Your task to perform on an android device: toggle notifications settings in the gmail app Image 0: 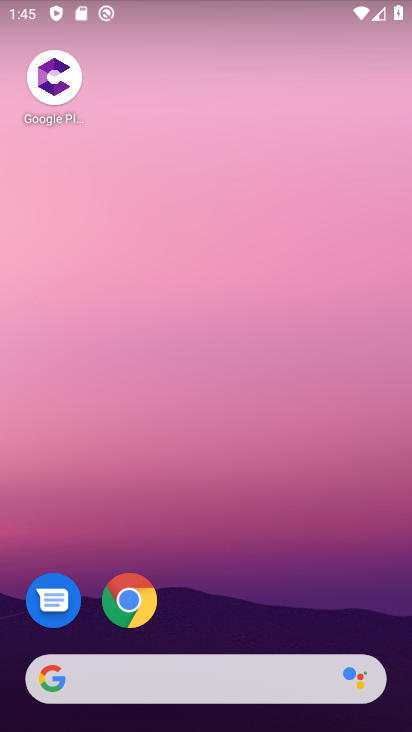
Step 0: drag from (286, 612) to (254, 255)
Your task to perform on an android device: toggle notifications settings in the gmail app Image 1: 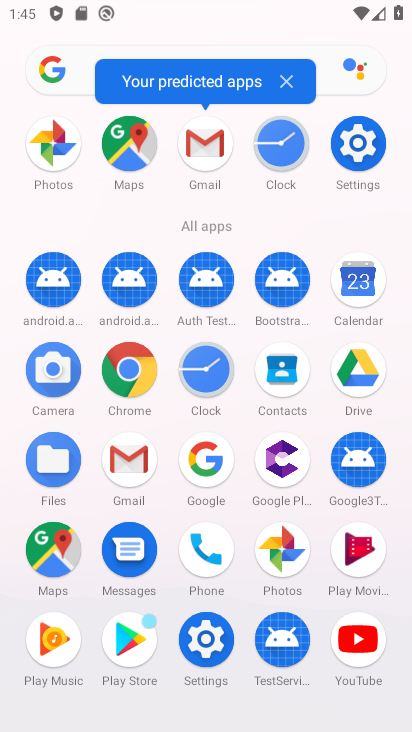
Step 1: click (346, 139)
Your task to perform on an android device: toggle notifications settings in the gmail app Image 2: 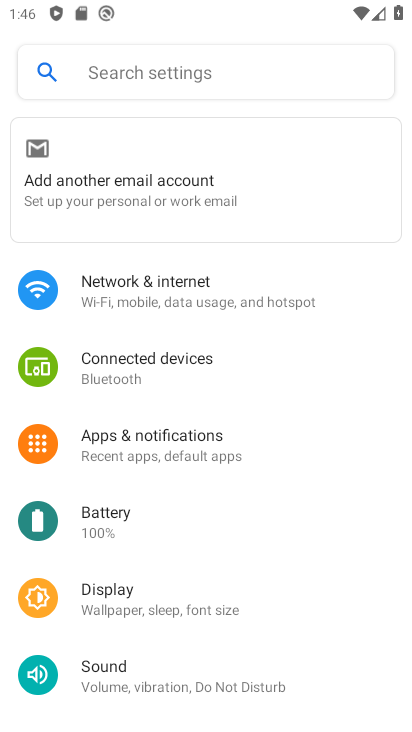
Step 2: press home button
Your task to perform on an android device: toggle notifications settings in the gmail app Image 3: 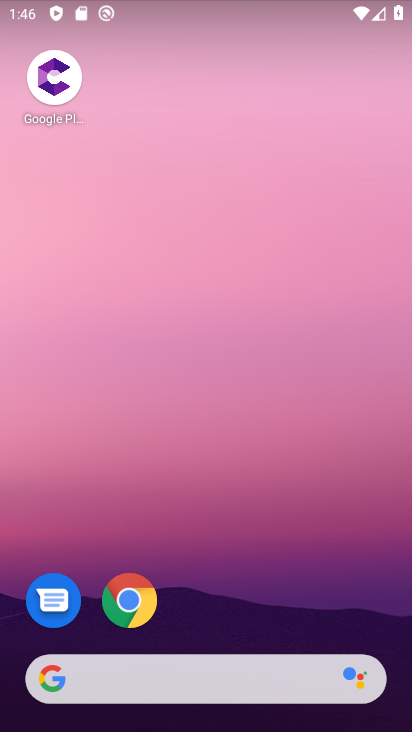
Step 3: drag from (230, 542) to (268, 224)
Your task to perform on an android device: toggle notifications settings in the gmail app Image 4: 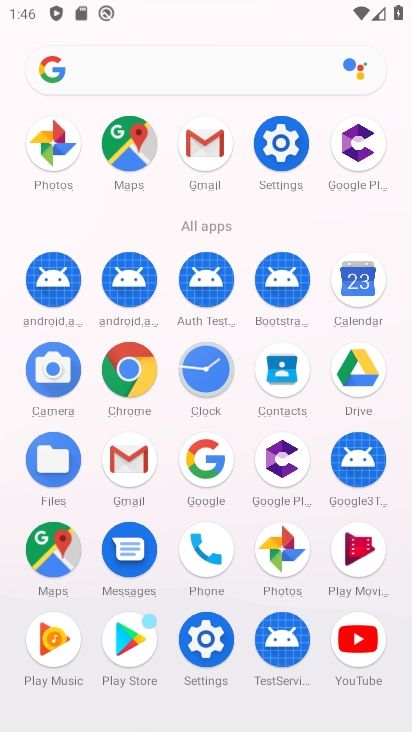
Step 4: click (131, 446)
Your task to perform on an android device: toggle notifications settings in the gmail app Image 5: 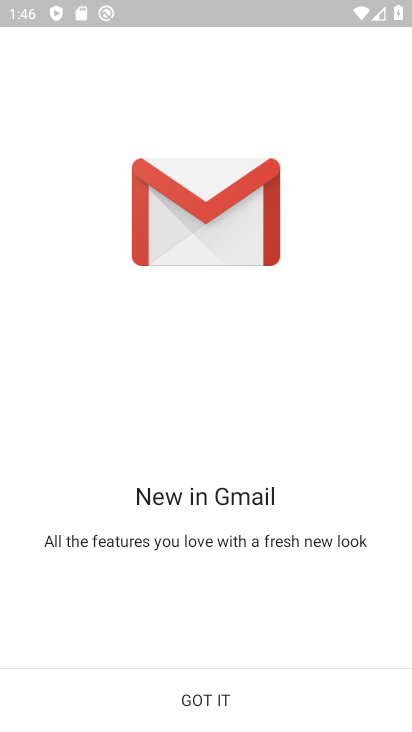
Step 5: click (214, 702)
Your task to perform on an android device: toggle notifications settings in the gmail app Image 6: 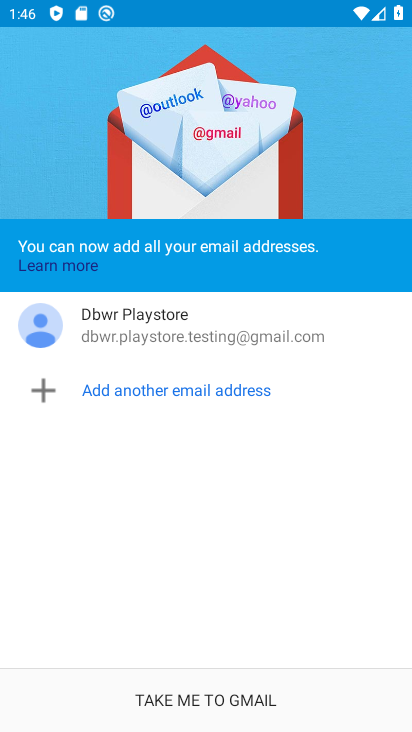
Step 6: click (220, 702)
Your task to perform on an android device: toggle notifications settings in the gmail app Image 7: 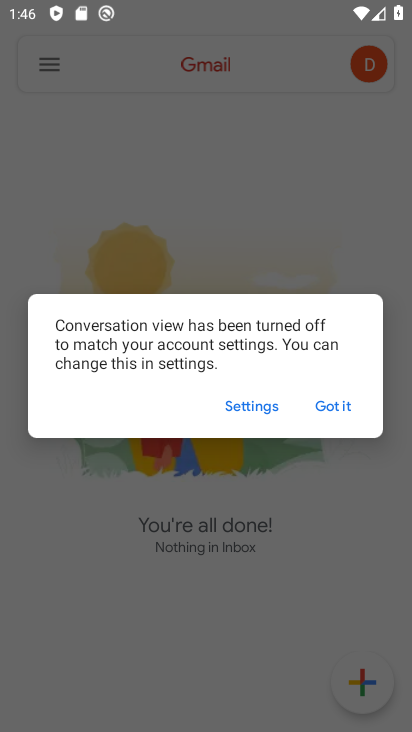
Step 7: click (340, 397)
Your task to perform on an android device: toggle notifications settings in the gmail app Image 8: 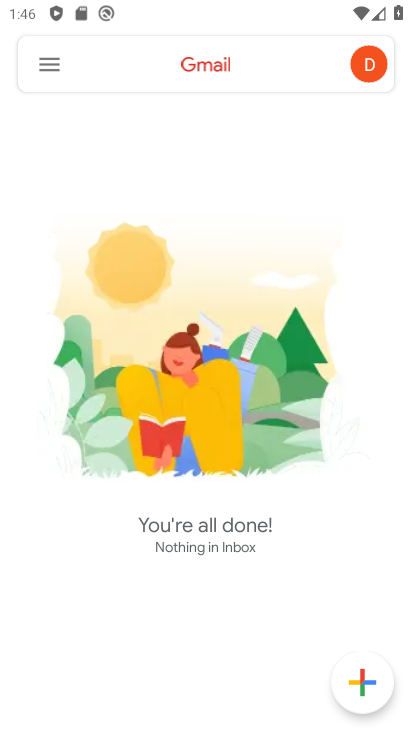
Step 8: click (48, 62)
Your task to perform on an android device: toggle notifications settings in the gmail app Image 9: 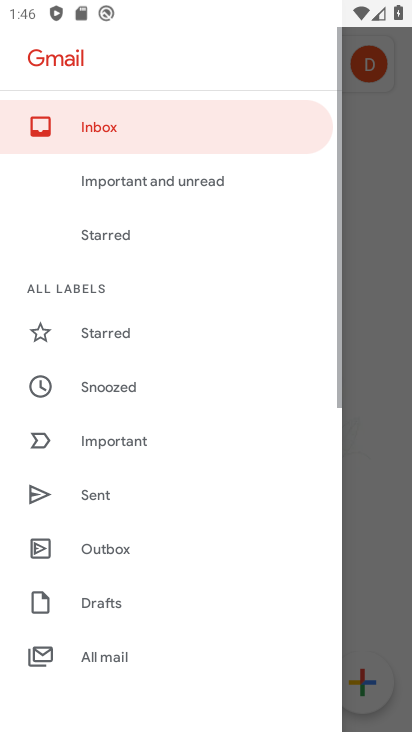
Step 9: drag from (171, 600) to (202, 244)
Your task to perform on an android device: toggle notifications settings in the gmail app Image 10: 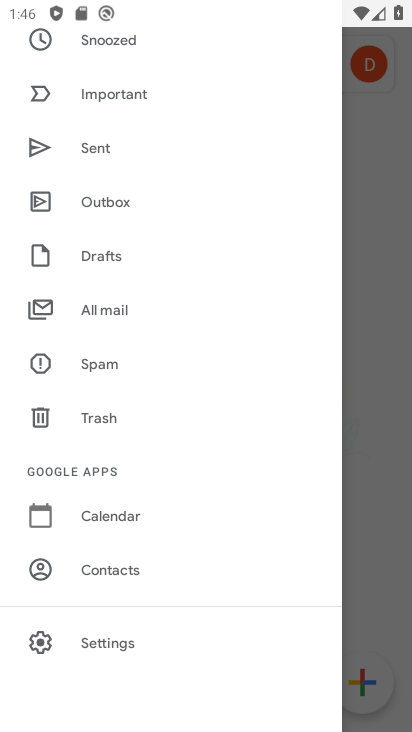
Step 10: click (132, 637)
Your task to perform on an android device: toggle notifications settings in the gmail app Image 11: 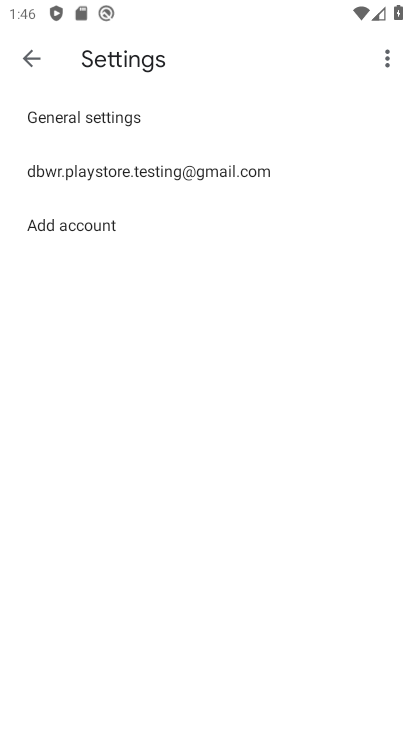
Step 11: click (121, 163)
Your task to perform on an android device: toggle notifications settings in the gmail app Image 12: 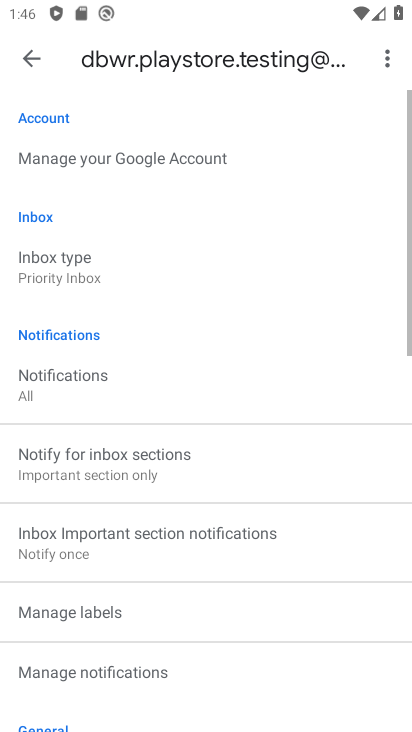
Step 12: drag from (231, 644) to (230, 521)
Your task to perform on an android device: toggle notifications settings in the gmail app Image 13: 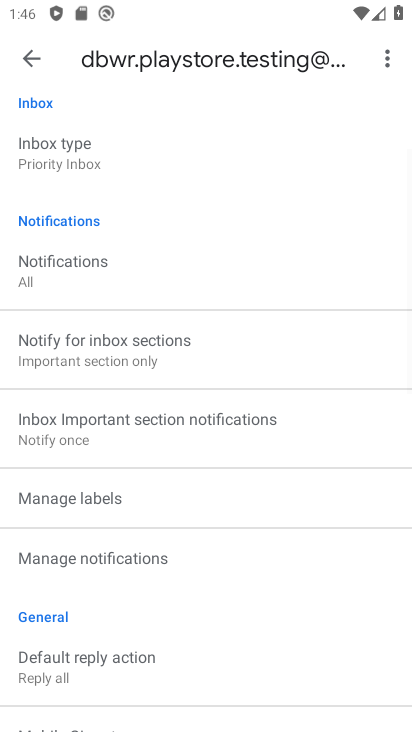
Step 13: click (108, 262)
Your task to perform on an android device: toggle notifications settings in the gmail app Image 14: 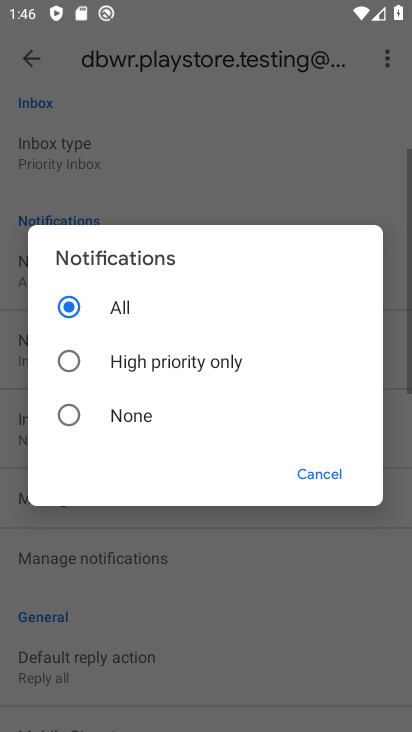
Step 14: click (114, 403)
Your task to perform on an android device: toggle notifications settings in the gmail app Image 15: 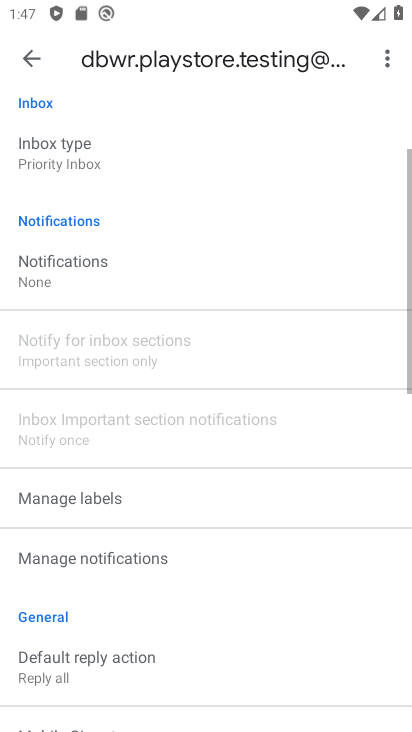
Step 15: task complete